Your task to perform on an android device: turn off picture-in-picture Image 0: 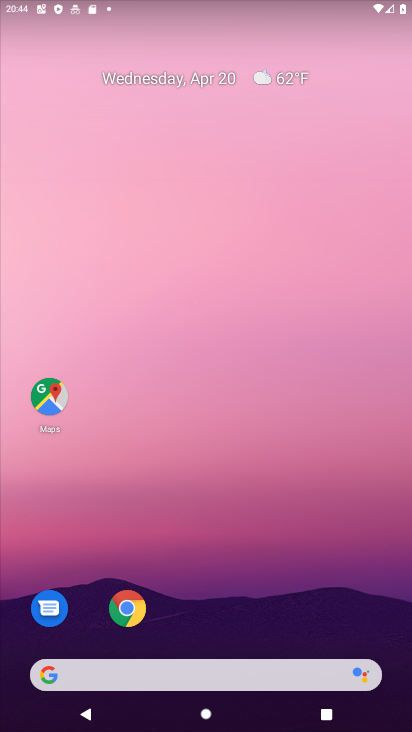
Step 0: drag from (330, 614) to (318, 7)
Your task to perform on an android device: turn off picture-in-picture Image 1: 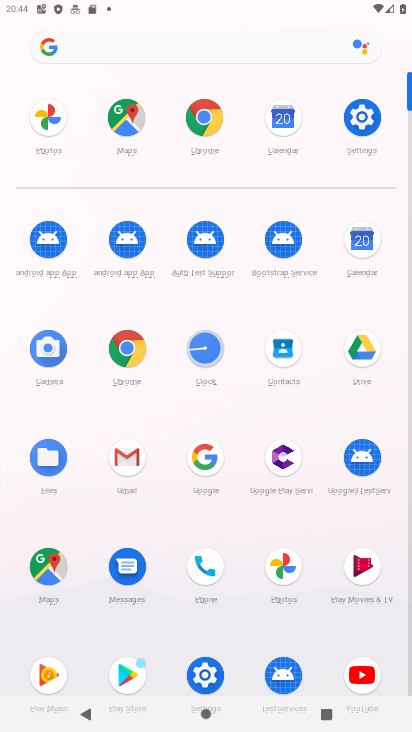
Step 1: click (207, 115)
Your task to perform on an android device: turn off picture-in-picture Image 2: 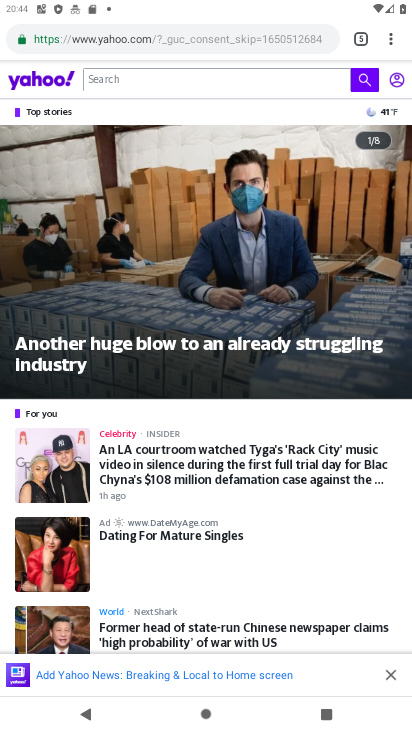
Step 2: click (394, 37)
Your task to perform on an android device: turn off picture-in-picture Image 3: 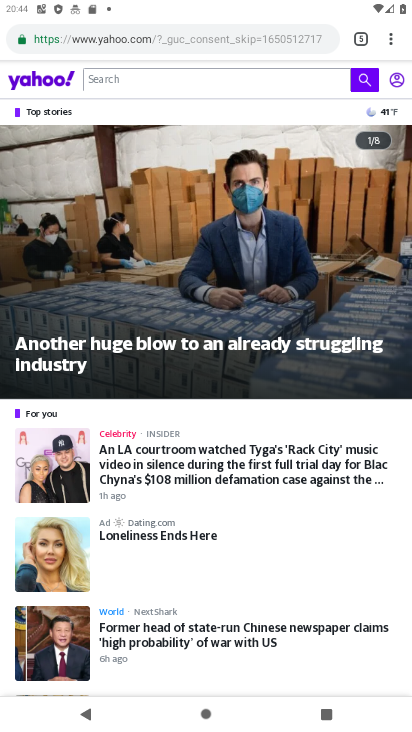
Step 3: drag from (395, 34) to (294, 67)
Your task to perform on an android device: turn off picture-in-picture Image 4: 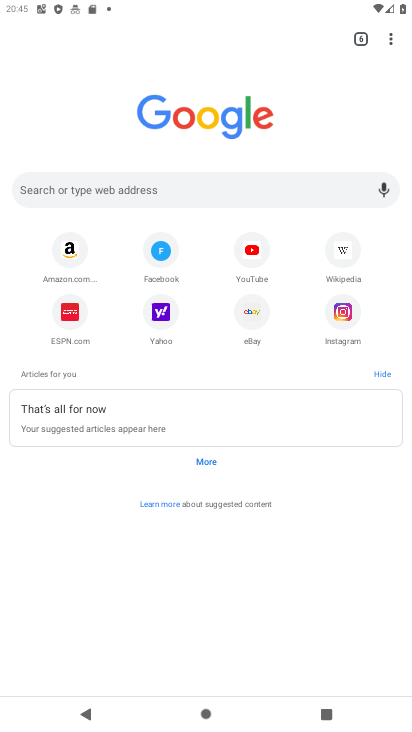
Step 4: press home button
Your task to perform on an android device: turn off picture-in-picture Image 5: 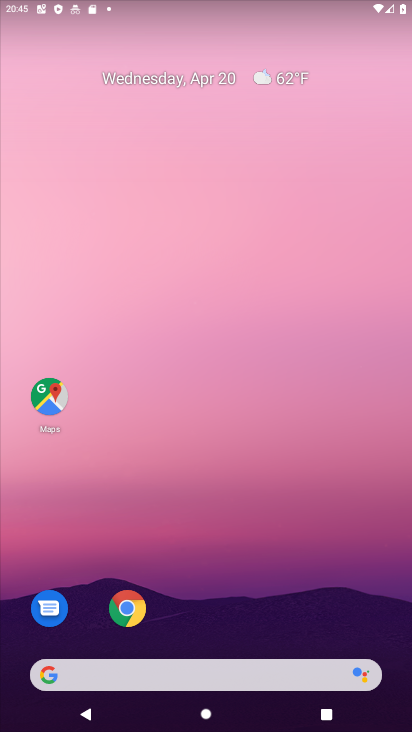
Step 5: click (123, 601)
Your task to perform on an android device: turn off picture-in-picture Image 6: 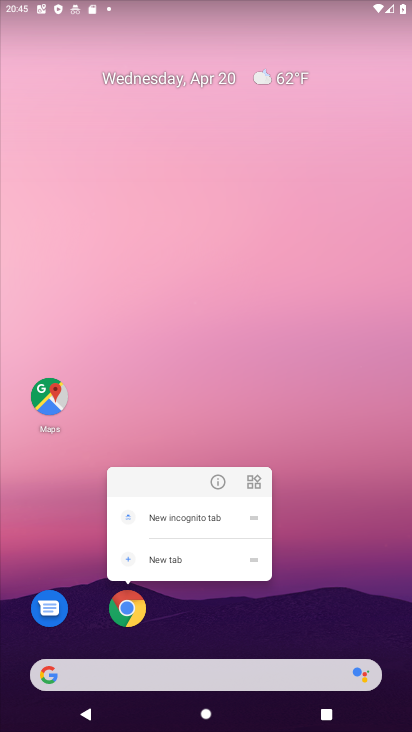
Step 6: click (213, 484)
Your task to perform on an android device: turn off picture-in-picture Image 7: 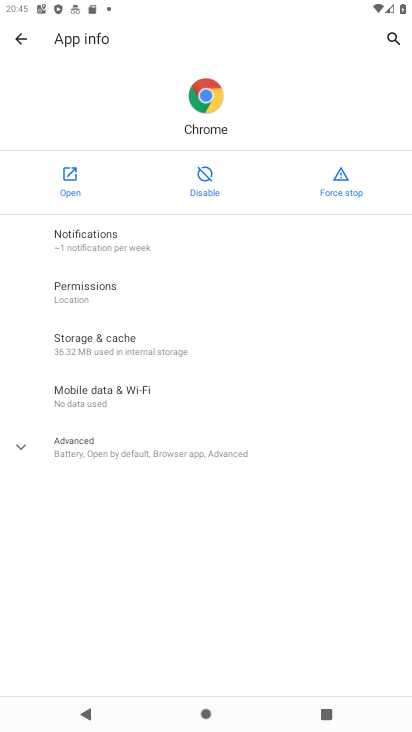
Step 7: click (143, 445)
Your task to perform on an android device: turn off picture-in-picture Image 8: 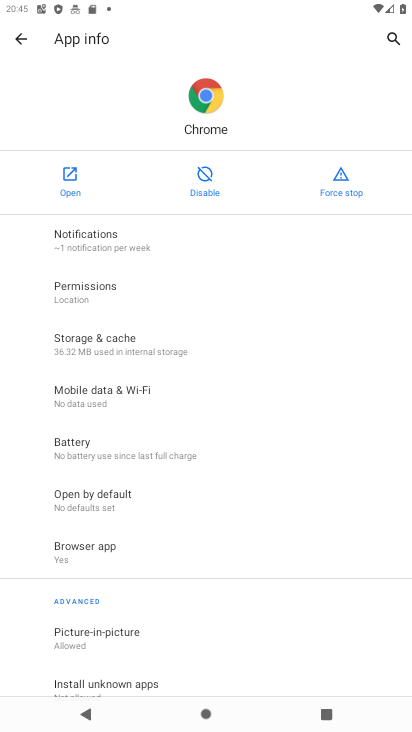
Step 8: click (116, 644)
Your task to perform on an android device: turn off picture-in-picture Image 9: 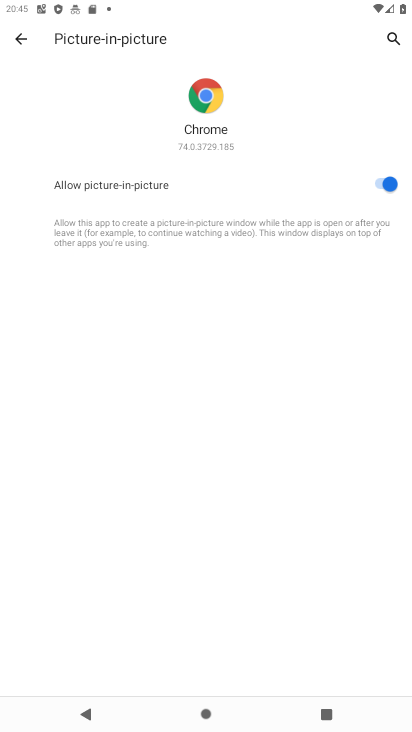
Step 9: click (364, 182)
Your task to perform on an android device: turn off picture-in-picture Image 10: 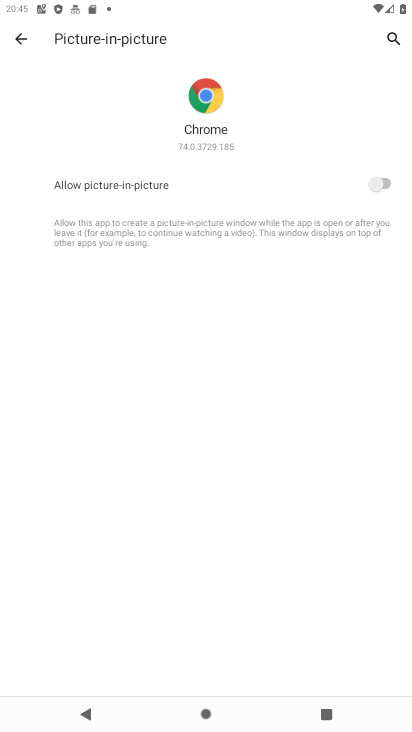
Step 10: task complete